Your task to perform on an android device: turn vacation reply on in the gmail app Image 0: 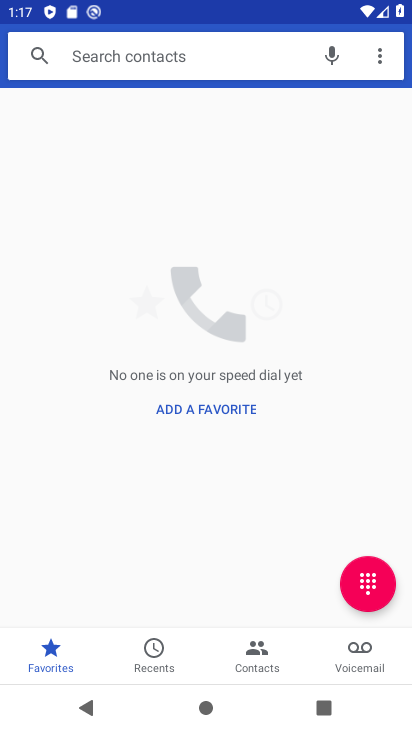
Step 0: press home button
Your task to perform on an android device: turn vacation reply on in the gmail app Image 1: 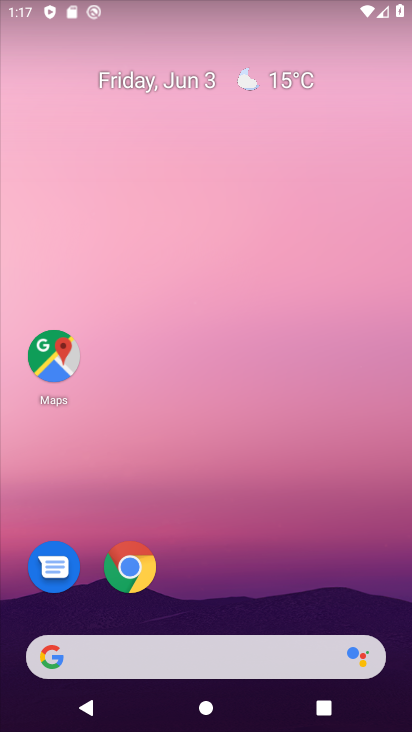
Step 1: drag from (231, 635) to (253, 158)
Your task to perform on an android device: turn vacation reply on in the gmail app Image 2: 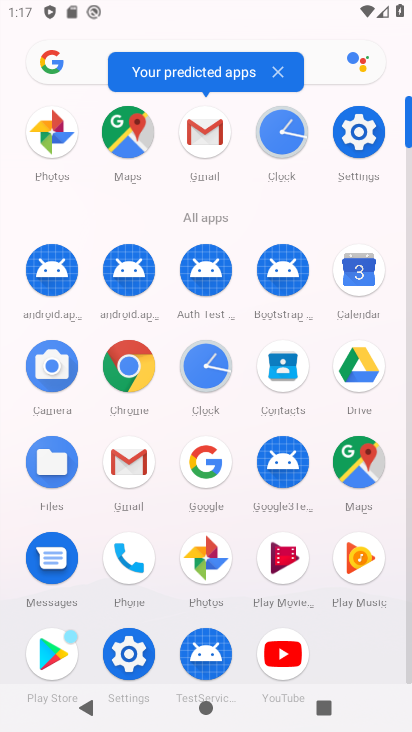
Step 2: click (210, 189)
Your task to perform on an android device: turn vacation reply on in the gmail app Image 3: 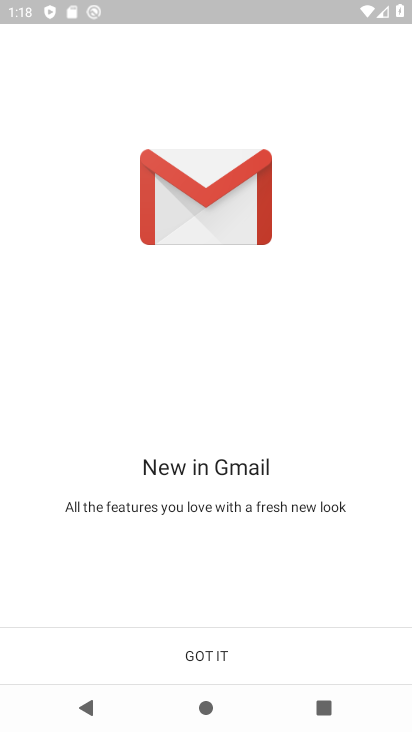
Step 3: click (221, 657)
Your task to perform on an android device: turn vacation reply on in the gmail app Image 4: 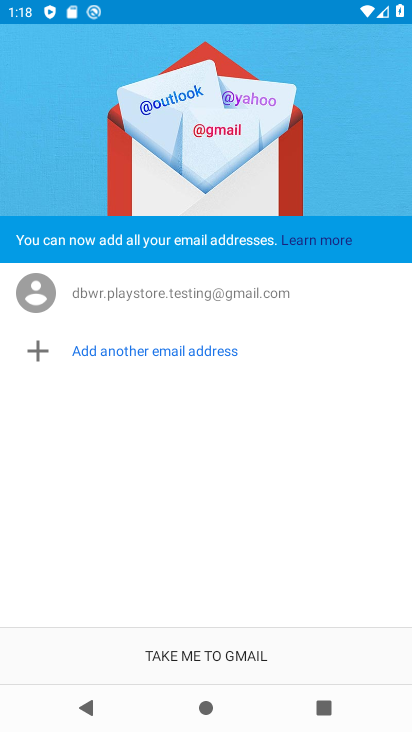
Step 4: click (221, 657)
Your task to perform on an android device: turn vacation reply on in the gmail app Image 5: 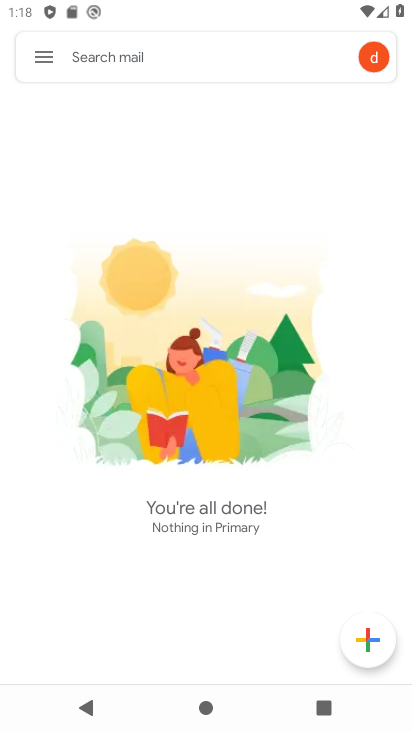
Step 5: click (43, 59)
Your task to perform on an android device: turn vacation reply on in the gmail app Image 6: 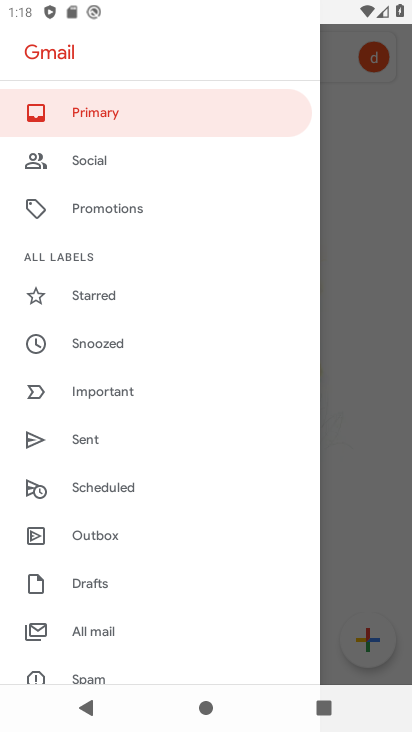
Step 6: drag from (142, 670) to (154, 290)
Your task to perform on an android device: turn vacation reply on in the gmail app Image 7: 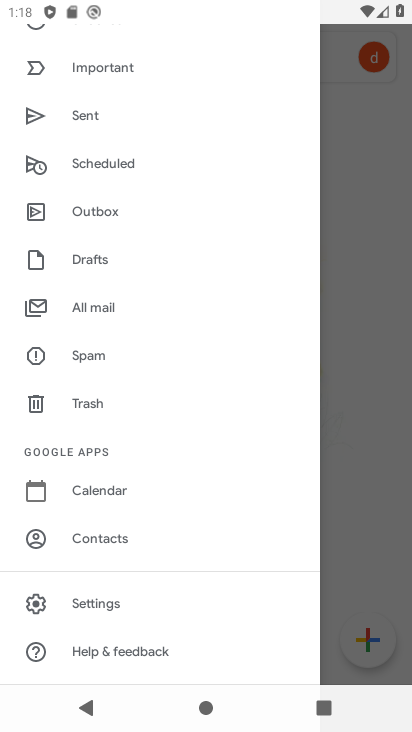
Step 7: click (104, 599)
Your task to perform on an android device: turn vacation reply on in the gmail app Image 8: 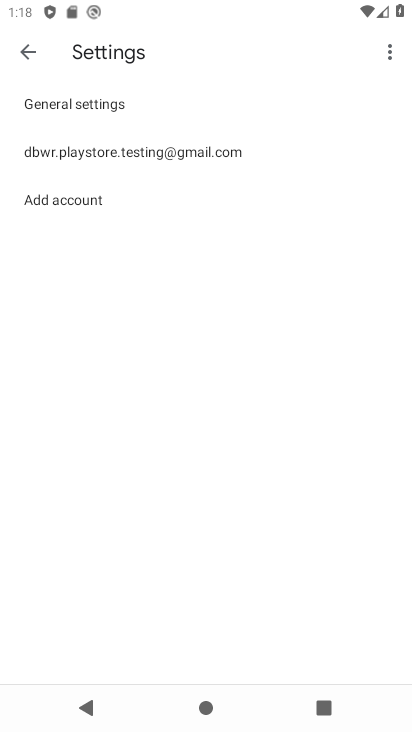
Step 8: click (187, 160)
Your task to perform on an android device: turn vacation reply on in the gmail app Image 9: 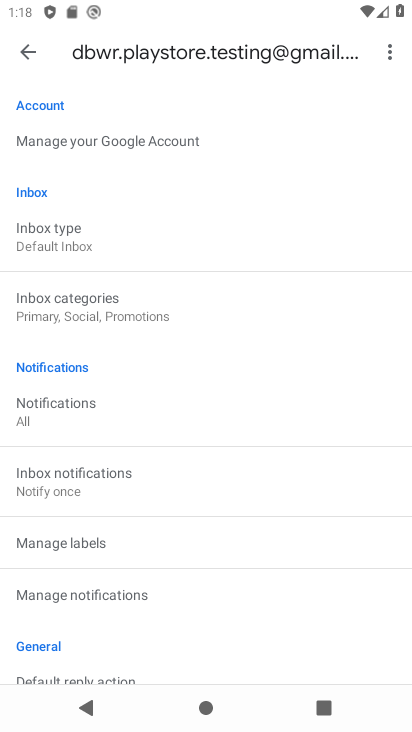
Step 9: drag from (172, 574) to (159, 228)
Your task to perform on an android device: turn vacation reply on in the gmail app Image 10: 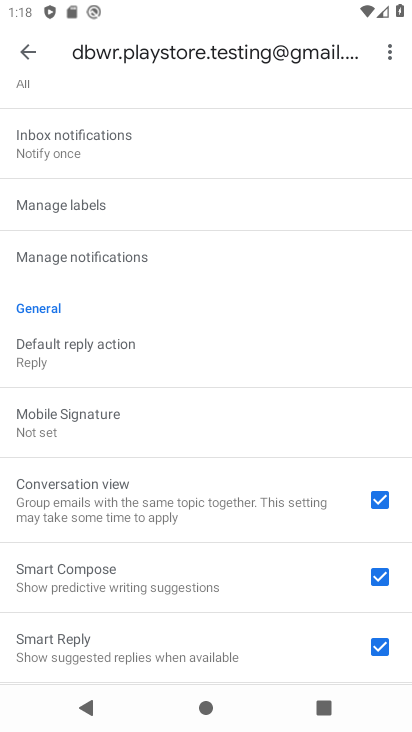
Step 10: drag from (126, 390) to (132, 235)
Your task to perform on an android device: turn vacation reply on in the gmail app Image 11: 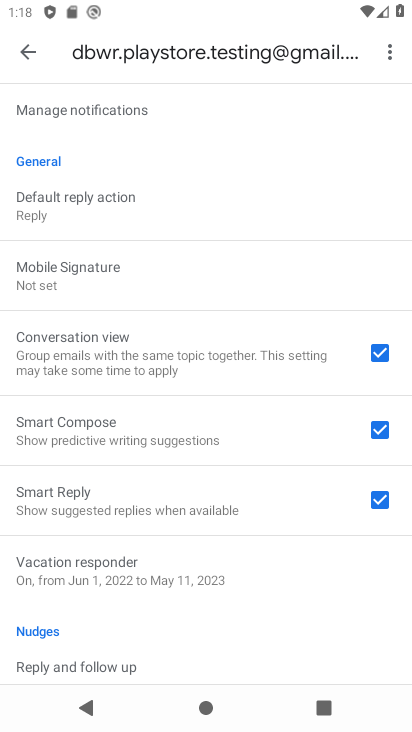
Step 11: drag from (129, 561) to (140, 189)
Your task to perform on an android device: turn vacation reply on in the gmail app Image 12: 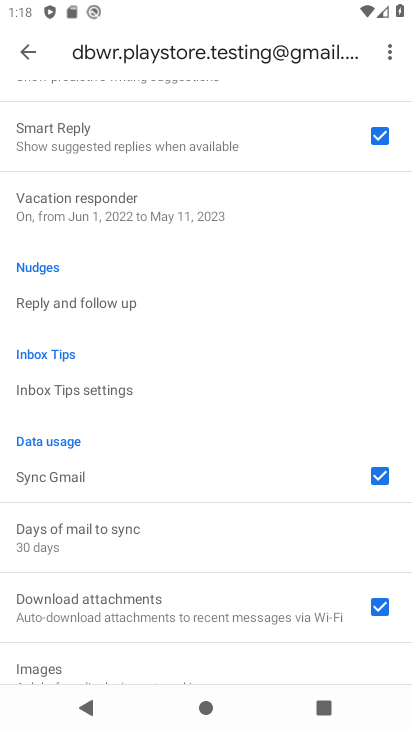
Step 12: drag from (144, 361) to (170, 214)
Your task to perform on an android device: turn vacation reply on in the gmail app Image 13: 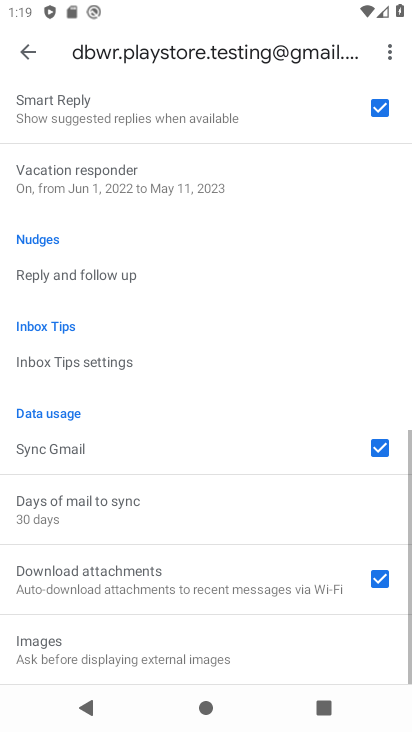
Step 13: click (203, 574)
Your task to perform on an android device: turn vacation reply on in the gmail app Image 14: 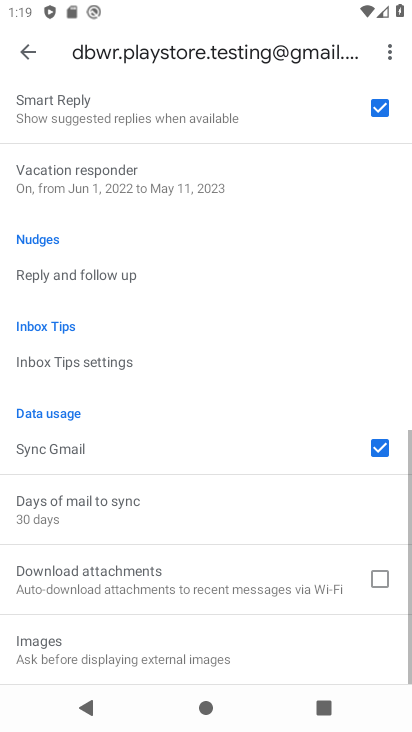
Step 14: click (184, 216)
Your task to perform on an android device: turn vacation reply on in the gmail app Image 15: 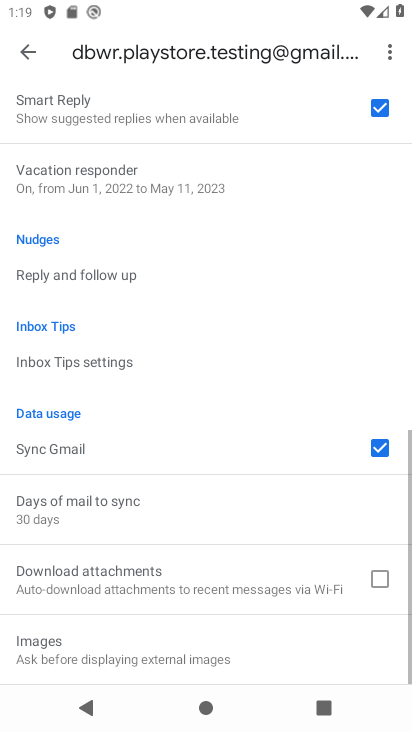
Step 15: click (113, 175)
Your task to perform on an android device: turn vacation reply on in the gmail app Image 16: 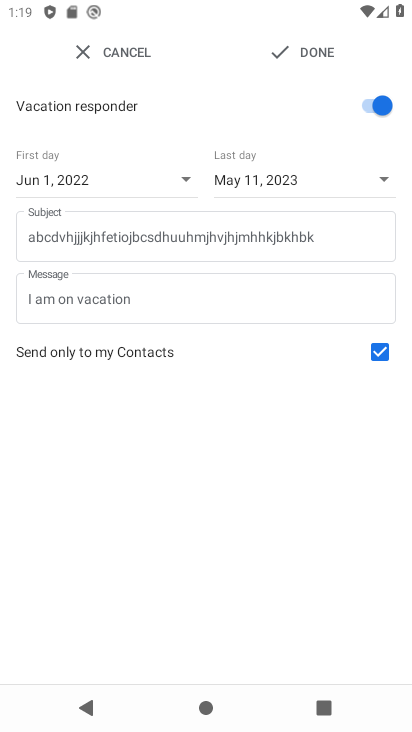
Step 16: click (315, 50)
Your task to perform on an android device: turn vacation reply on in the gmail app Image 17: 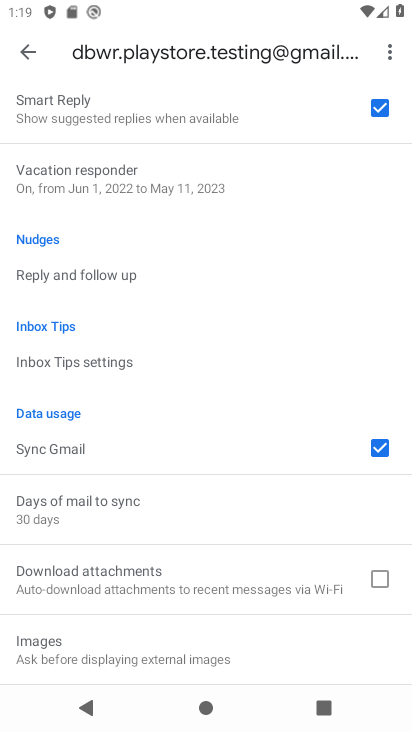
Step 17: task complete